Your task to perform on an android device: Open battery settings Image 0: 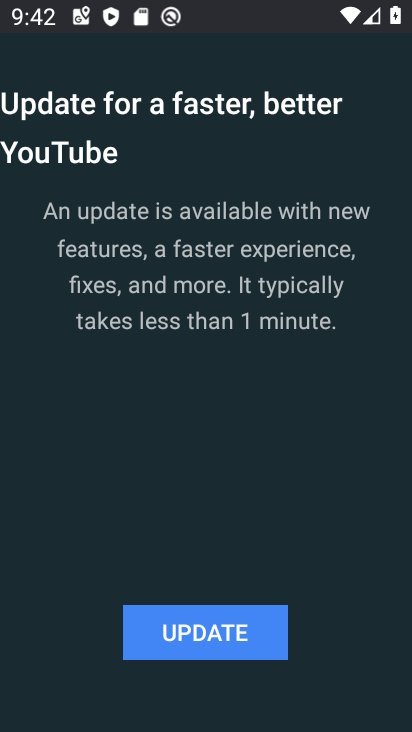
Step 0: press back button
Your task to perform on an android device: Open battery settings Image 1: 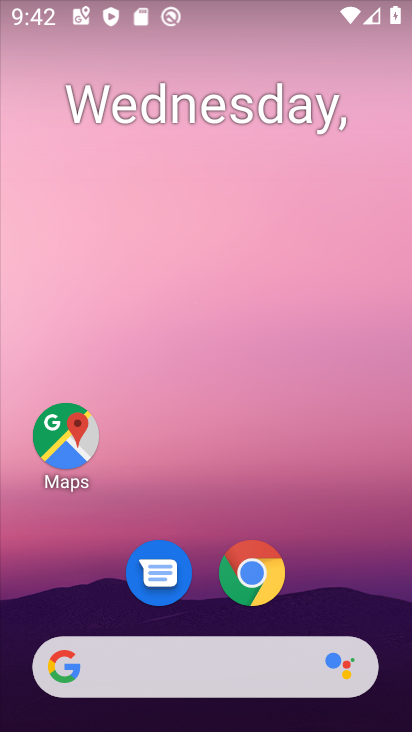
Step 1: drag from (366, 584) to (312, 290)
Your task to perform on an android device: Open battery settings Image 2: 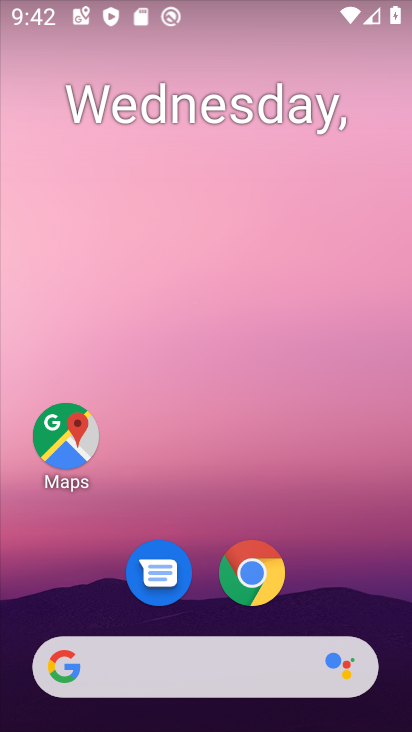
Step 2: drag from (324, 582) to (280, 286)
Your task to perform on an android device: Open battery settings Image 3: 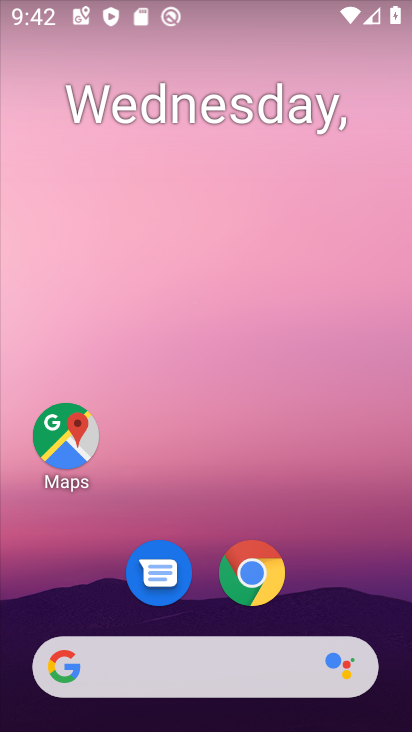
Step 3: drag from (295, 595) to (312, 303)
Your task to perform on an android device: Open battery settings Image 4: 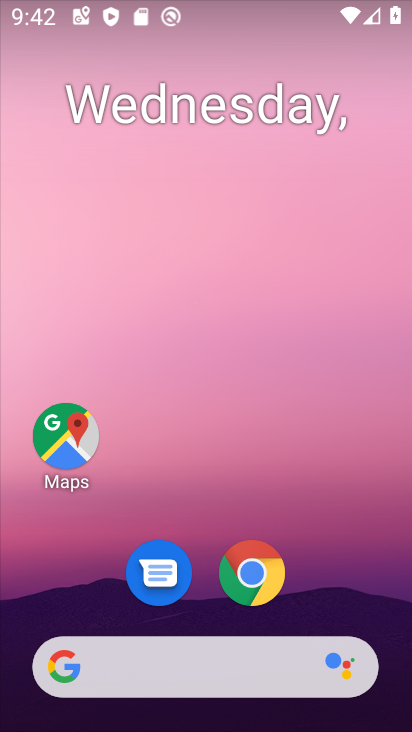
Step 4: drag from (286, 606) to (324, 231)
Your task to perform on an android device: Open battery settings Image 5: 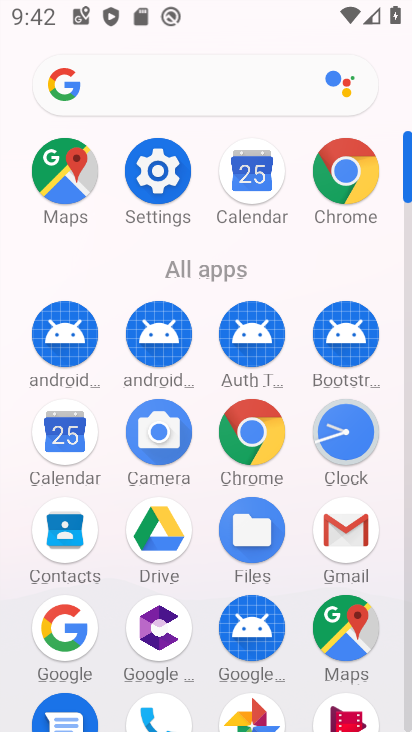
Step 5: click (158, 171)
Your task to perform on an android device: Open battery settings Image 6: 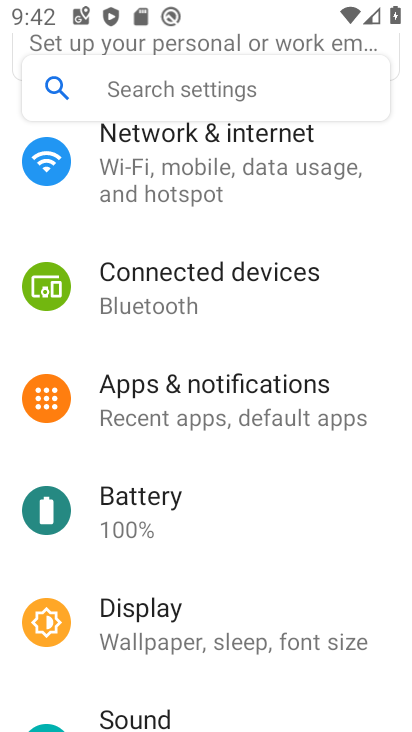
Step 6: click (188, 505)
Your task to perform on an android device: Open battery settings Image 7: 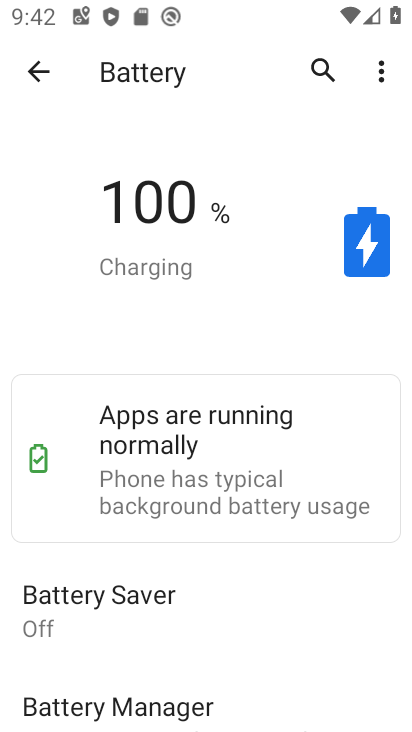
Step 7: task complete